Your task to perform on an android device: Show me the alarms in the clock app Image 0: 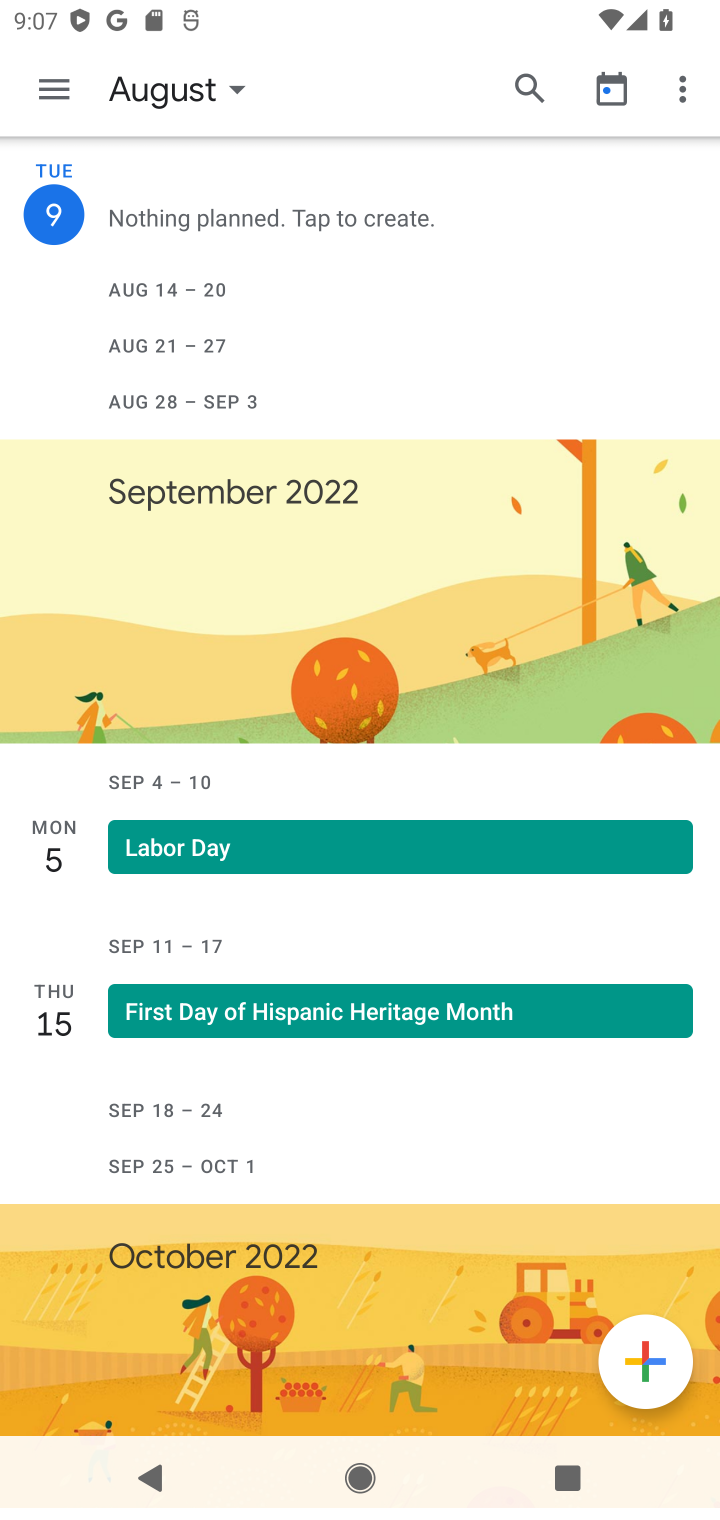
Step 0: press home button
Your task to perform on an android device: Show me the alarms in the clock app Image 1: 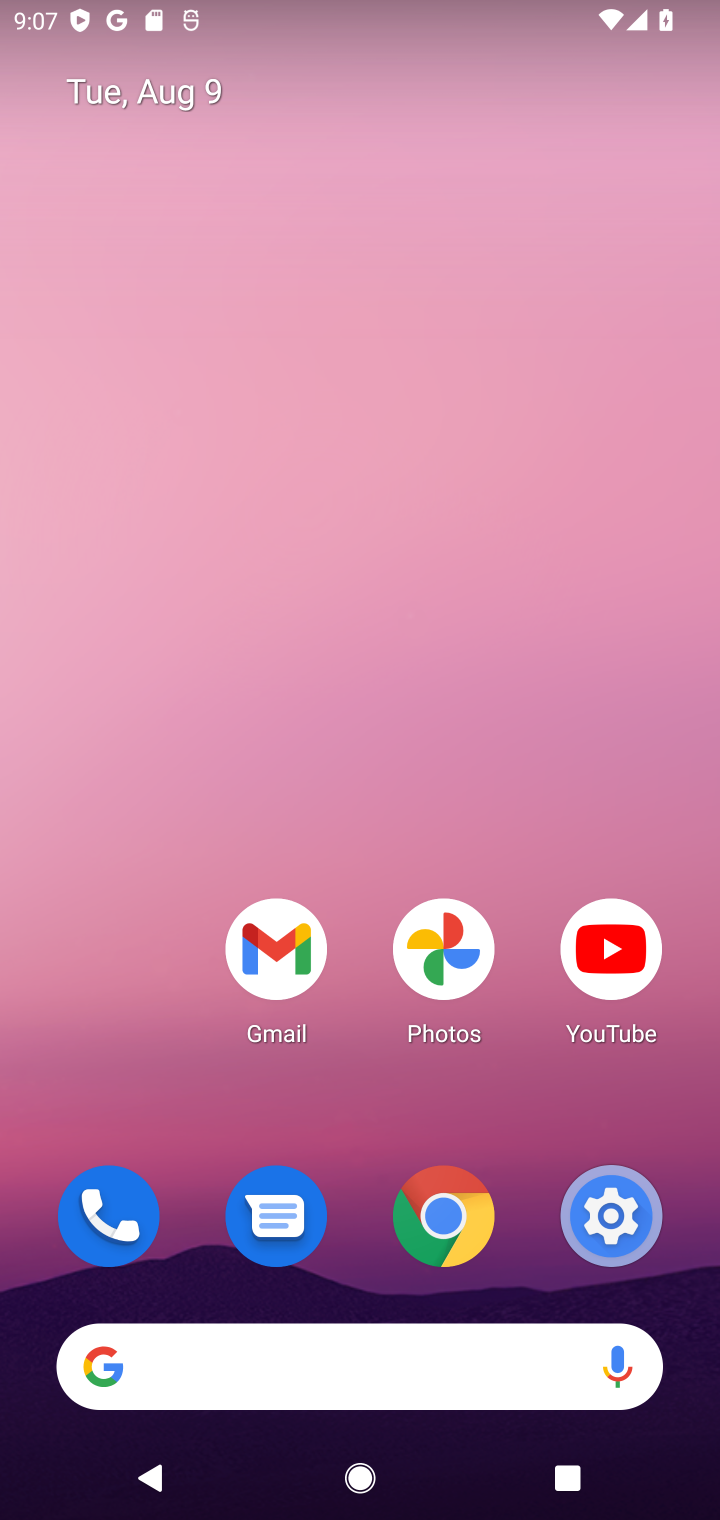
Step 1: drag from (428, 1321) to (434, 682)
Your task to perform on an android device: Show me the alarms in the clock app Image 2: 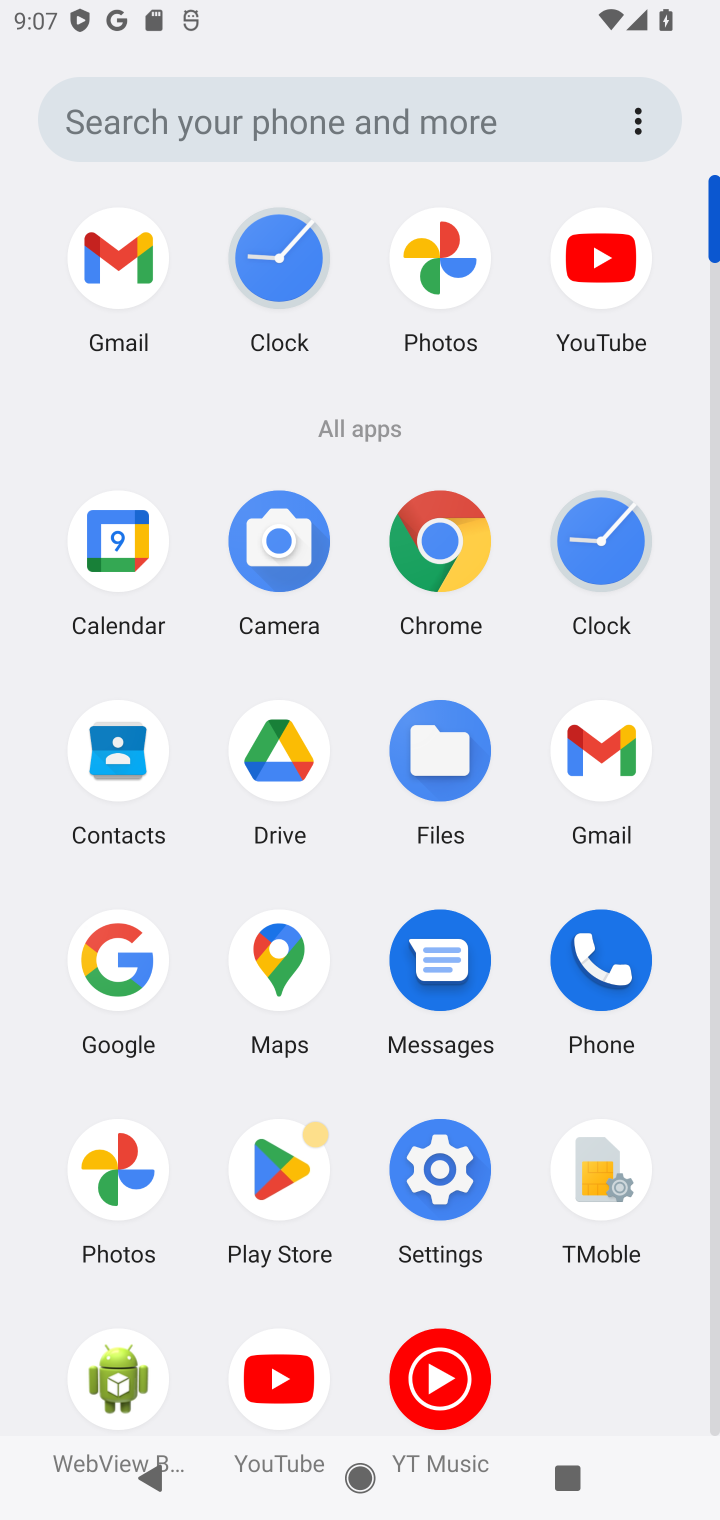
Step 2: click (592, 555)
Your task to perform on an android device: Show me the alarms in the clock app Image 3: 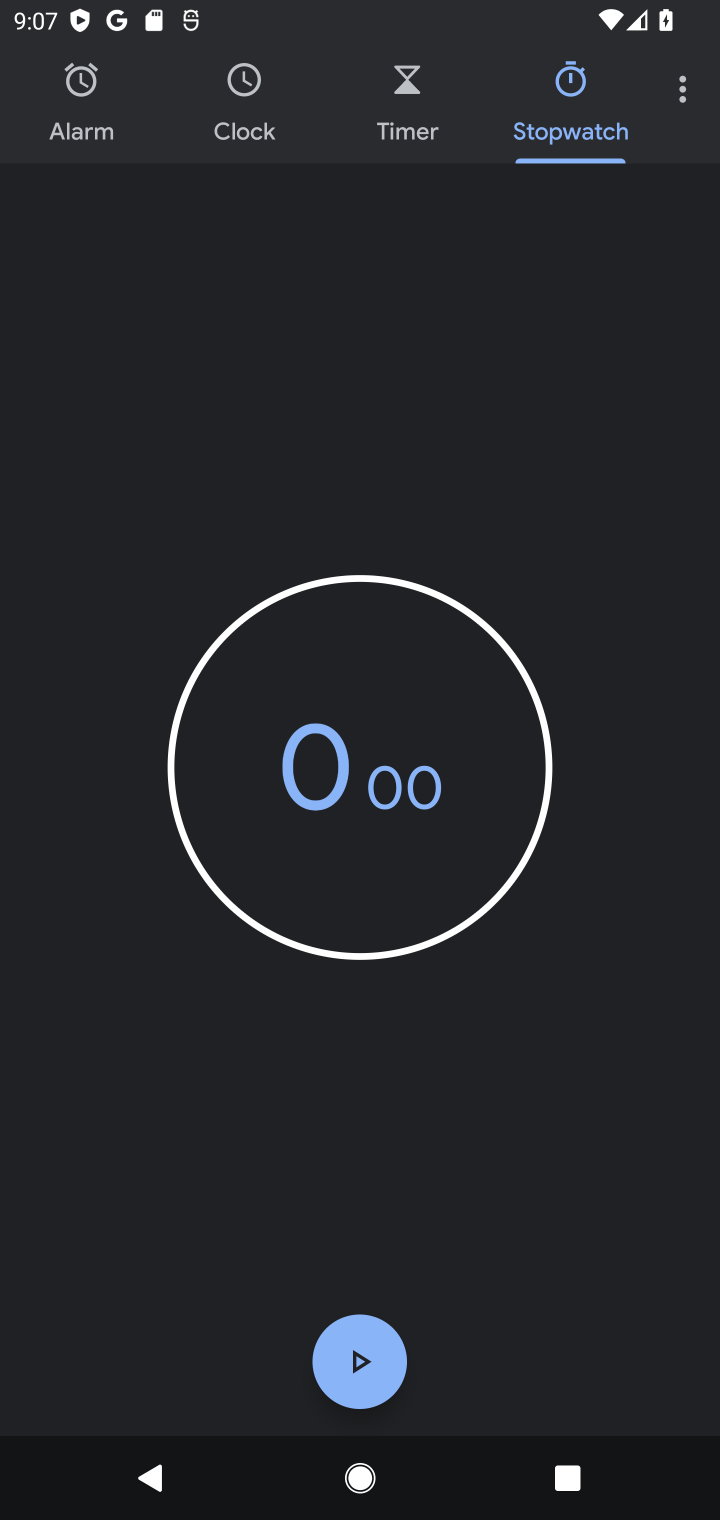
Step 3: click (690, 85)
Your task to perform on an android device: Show me the alarms in the clock app Image 4: 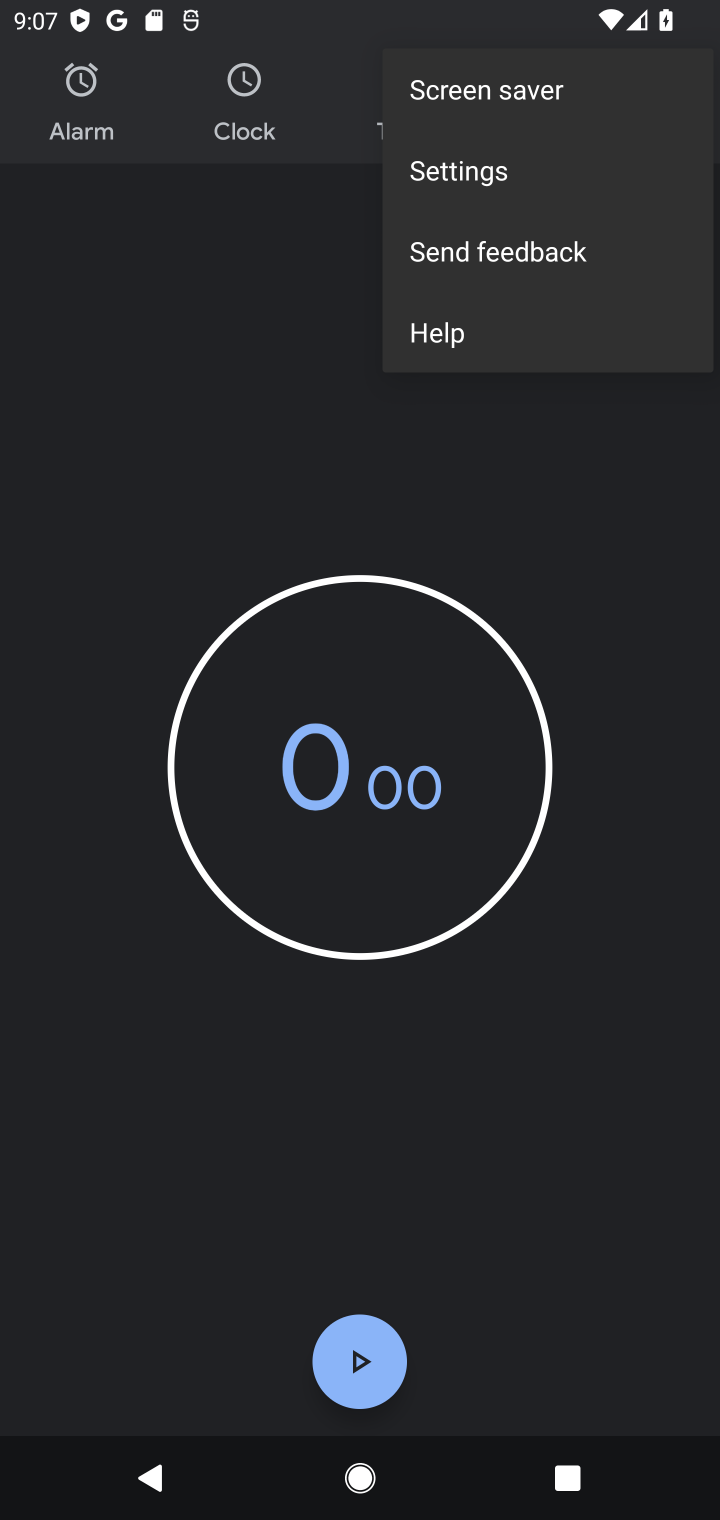
Step 4: click (191, 529)
Your task to perform on an android device: Show me the alarms in the clock app Image 5: 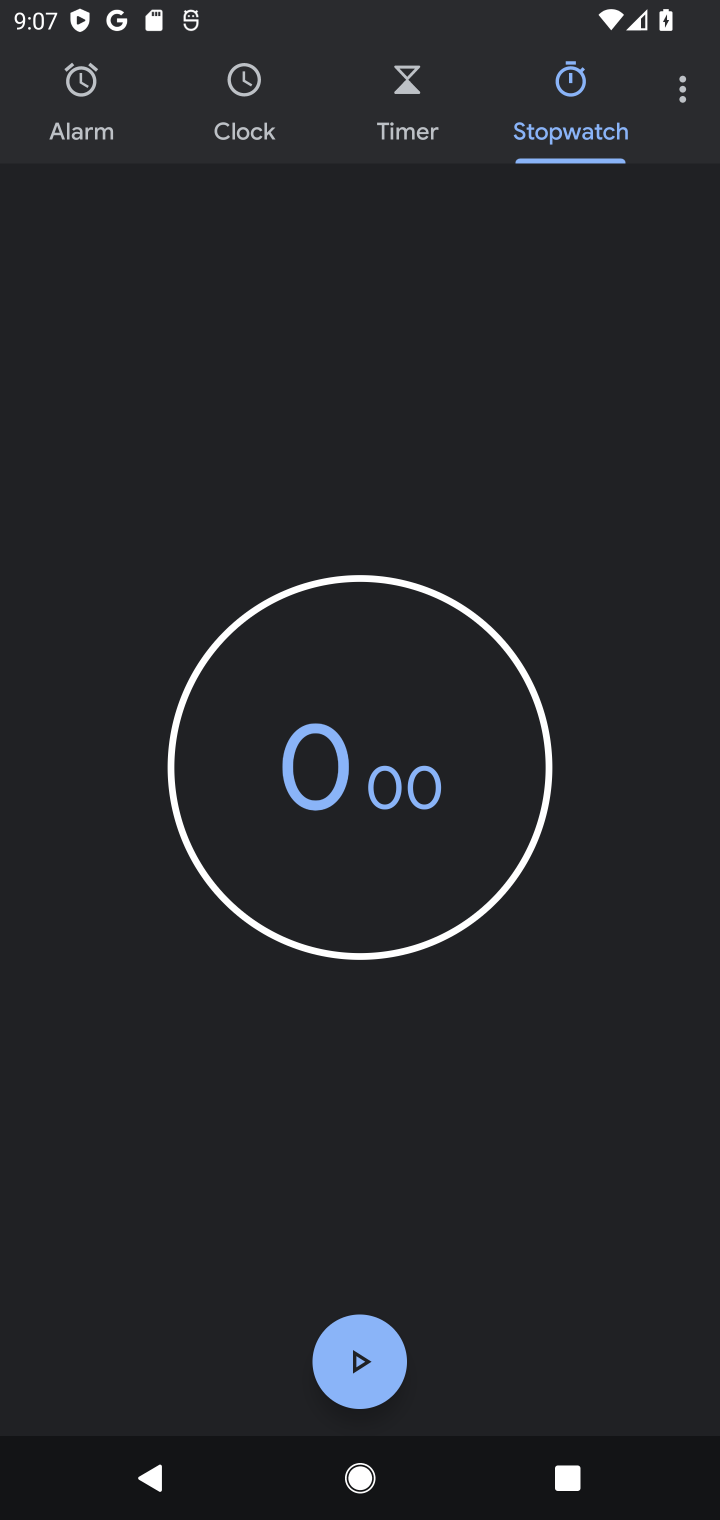
Step 5: click (96, 115)
Your task to perform on an android device: Show me the alarms in the clock app Image 6: 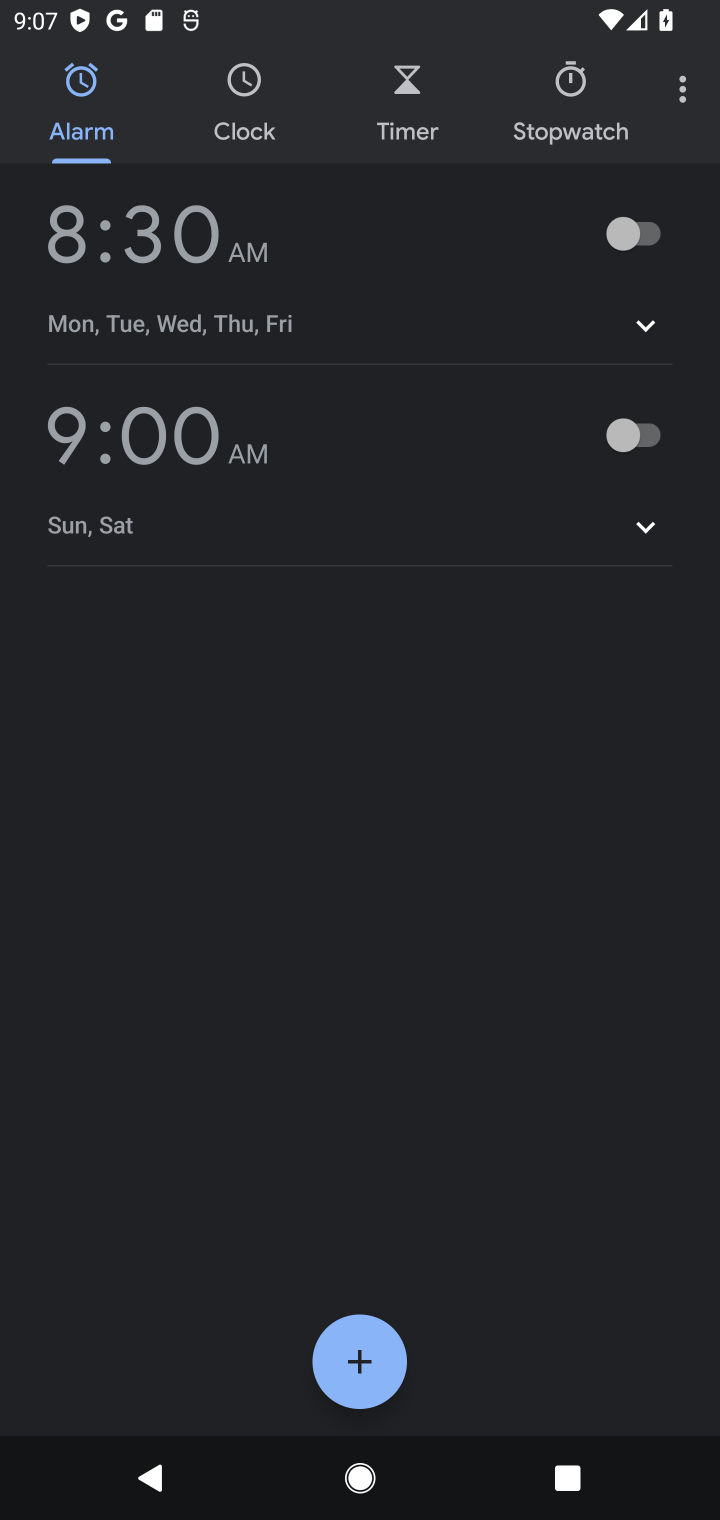
Step 6: task complete